Your task to perform on an android device: turn on translation in the chrome app Image 0: 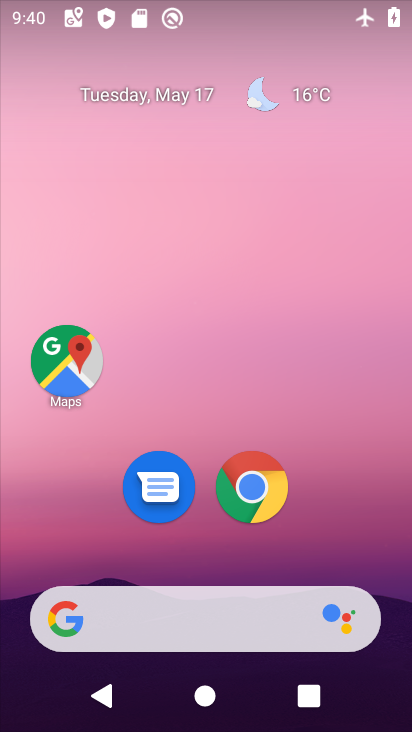
Step 0: click (265, 478)
Your task to perform on an android device: turn on translation in the chrome app Image 1: 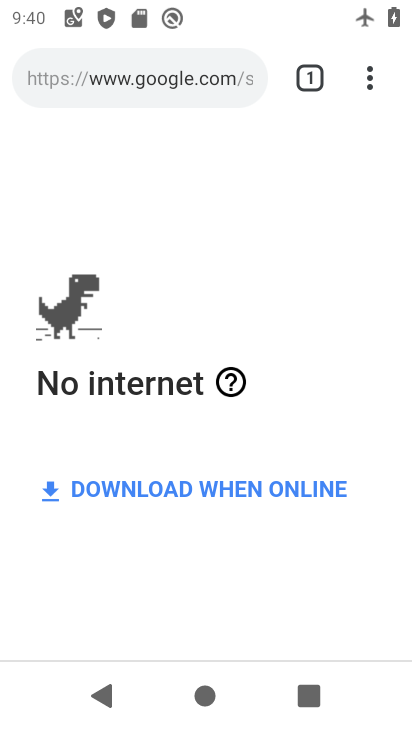
Step 1: click (363, 71)
Your task to perform on an android device: turn on translation in the chrome app Image 2: 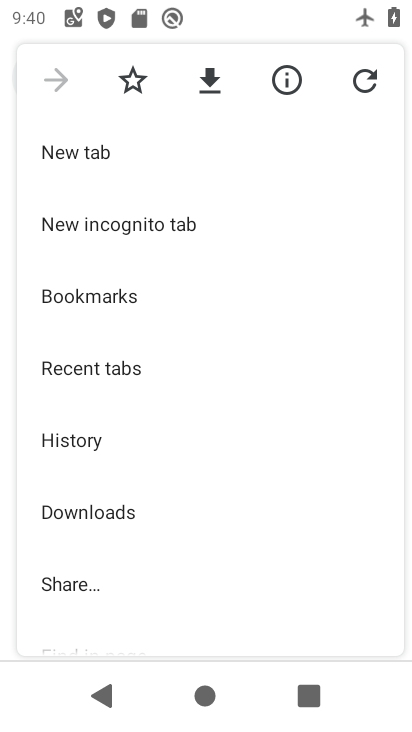
Step 2: drag from (119, 540) to (172, 313)
Your task to perform on an android device: turn on translation in the chrome app Image 3: 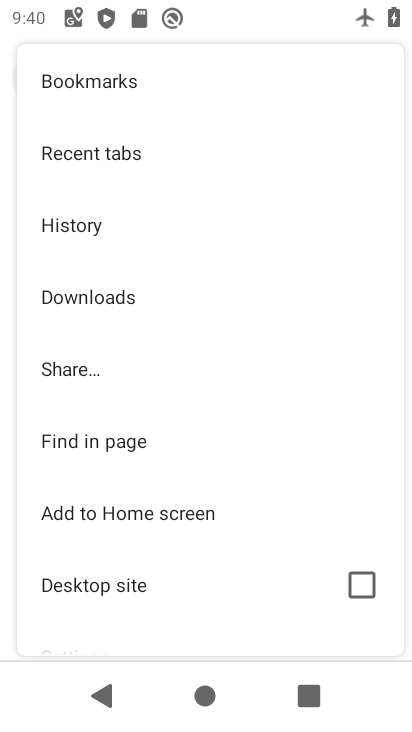
Step 3: drag from (102, 591) to (128, 338)
Your task to perform on an android device: turn on translation in the chrome app Image 4: 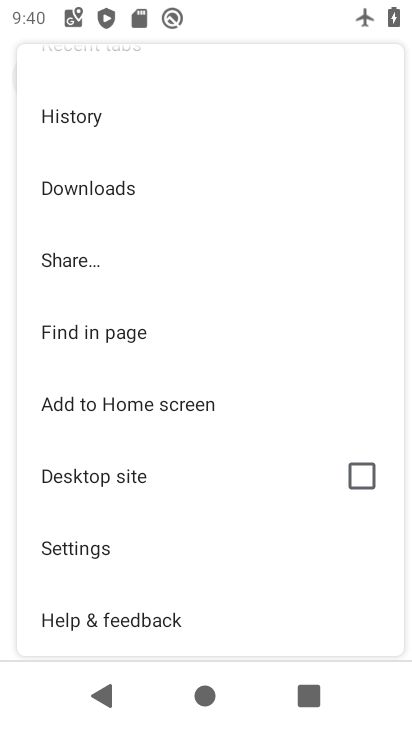
Step 4: click (87, 545)
Your task to perform on an android device: turn on translation in the chrome app Image 5: 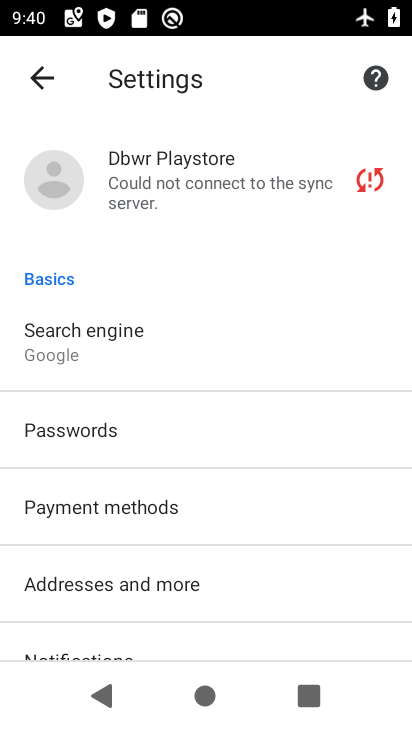
Step 5: drag from (113, 557) to (169, 276)
Your task to perform on an android device: turn on translation in the chrome app Image 6: 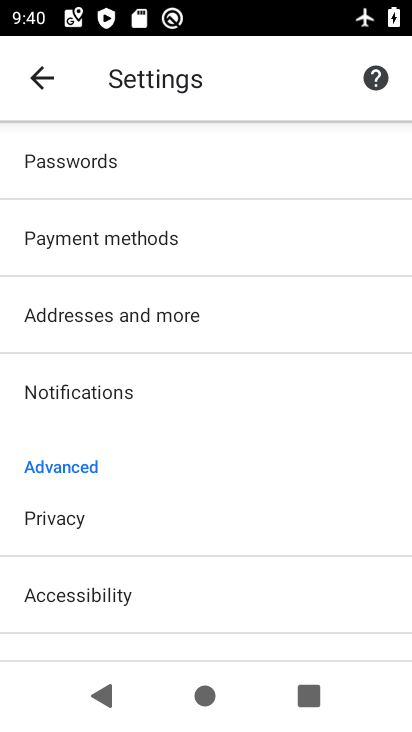
Step 6: drag from (136, 537) to (170, 247)
Your task to perform on an android device: turn on translation in the chrome app Image 7: 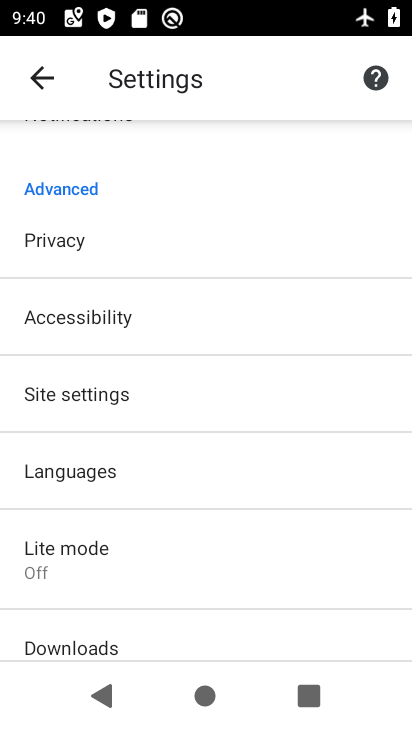
Step 7: click (90, 476)
Your task to perform on an android device: turn on translation in the chrome app Image 8: 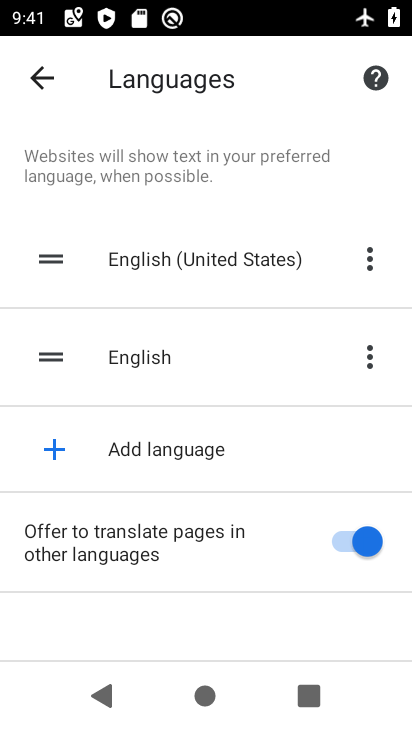
Step 8: task complete